Your task to perform on an android device: open device folders in google photos Image 0: 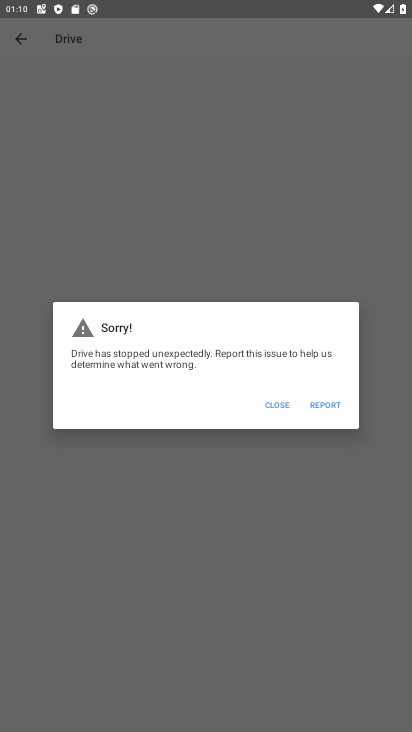
Step 0: press home button
Your task to perform on an android device: open device folders in google photos Image 1: 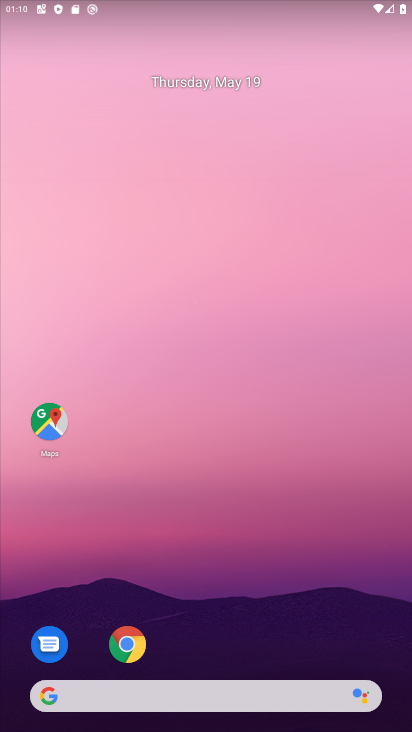
Step 1: drag from (366, 600) to (312, 166)
Your task to perform on an android device: open device folders in google photos Image 2: 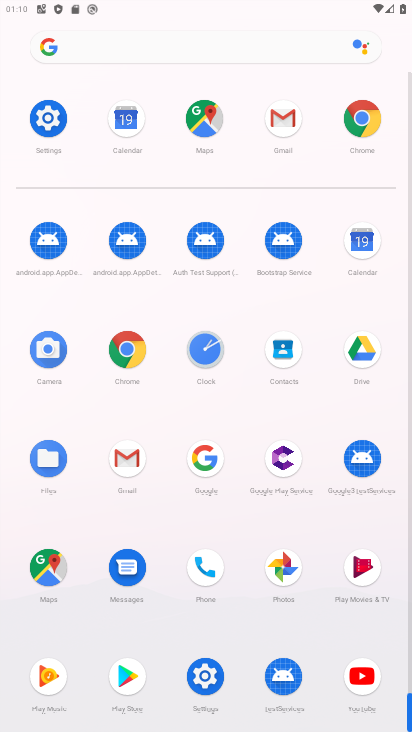
Step 2: click (282, 569)
Your task to perform on an android device: open device folders in google photos Image 3: 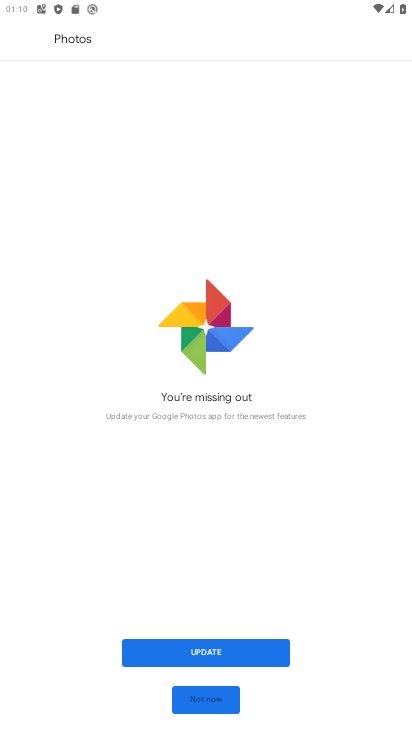
Step 3: click (259, 647)
Your task to perform on an android device: open device folders in google photos Image 4: 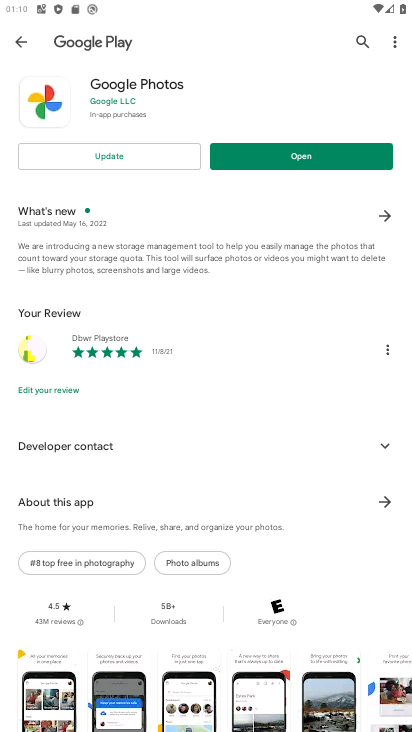
Step 4: click (140, 152)
Your task to perform on an android device: open device folders in google photos Image 5: 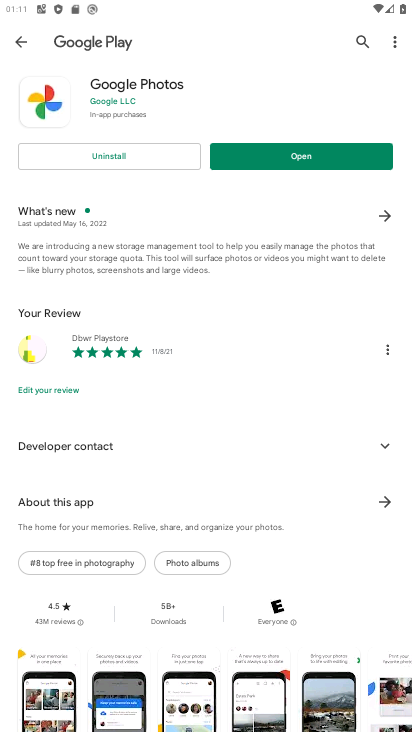
Step 5: click (323, 153)
Your task to perform on an android device: open device folders in google photos Image 6: 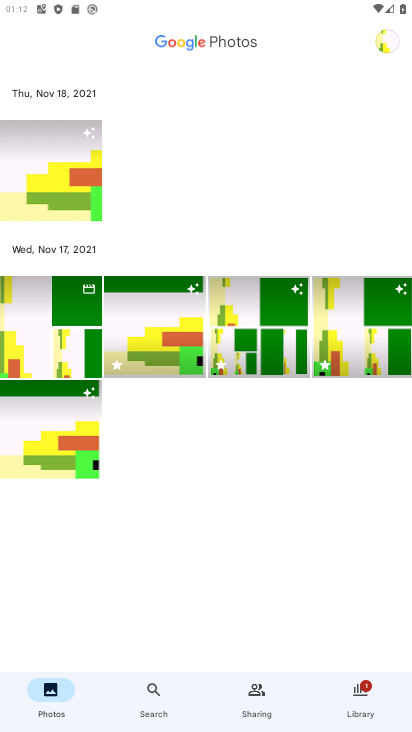
Step 6: click (356, 702)
Your task to perform on an android device: open device folders in google photos Image 7: 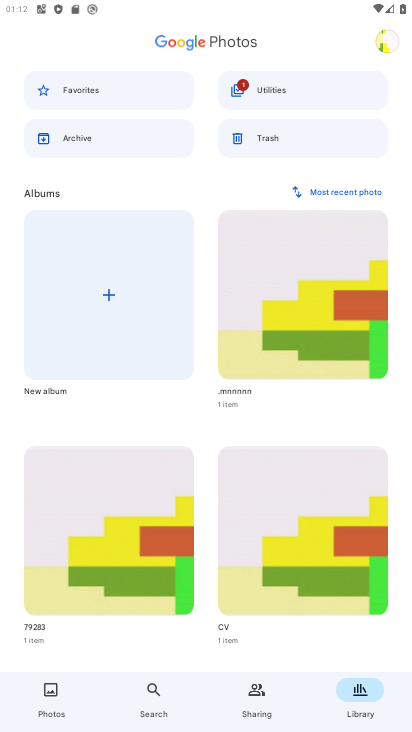
Step 7: click (113, 302)
Your task to perform on an android device: open device folders in google photos Image 8: 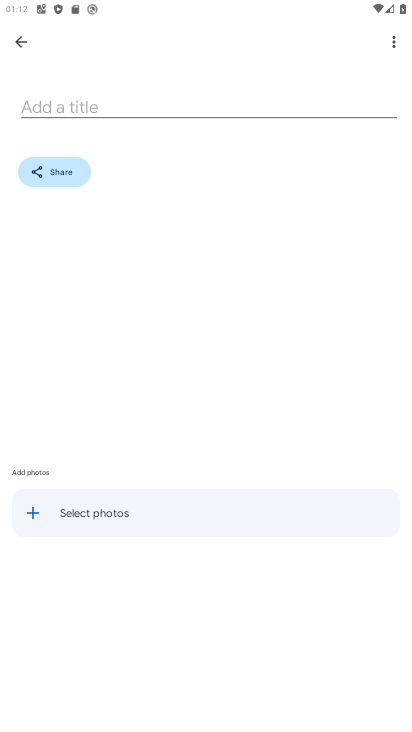
Step 8: click (108, 110)
Your task to perform on an android device: open device folders in google photos Image 9: 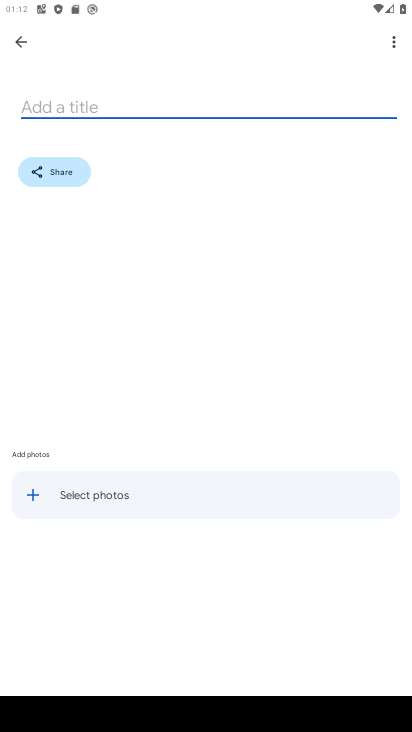
Step 9: type "dinsn"
Your task to perform on an android device: open device folders in google photos Image 10: 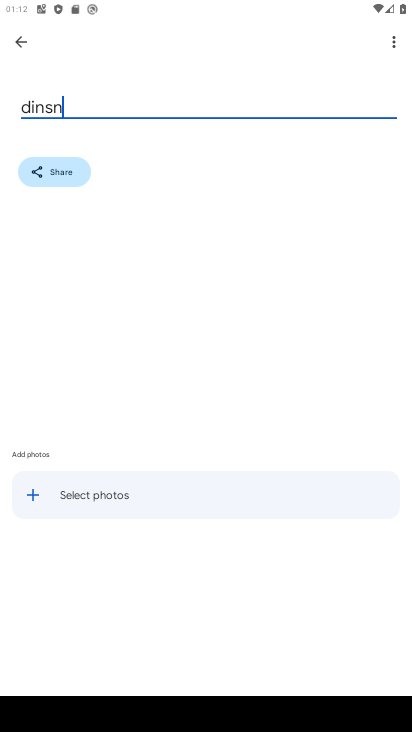
Step 10: click (25, 503)
Your task to perform on an android device: open device folders in google photos Image 11: 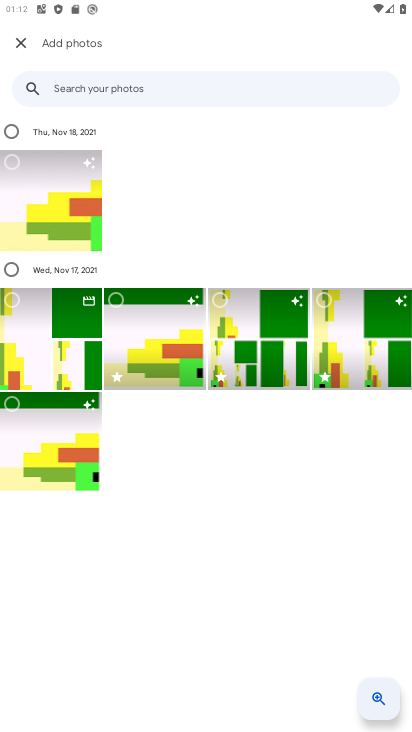
Step 11: click (13, 165)
Your task to perform on an android device: open device folders in google photos Image 12: 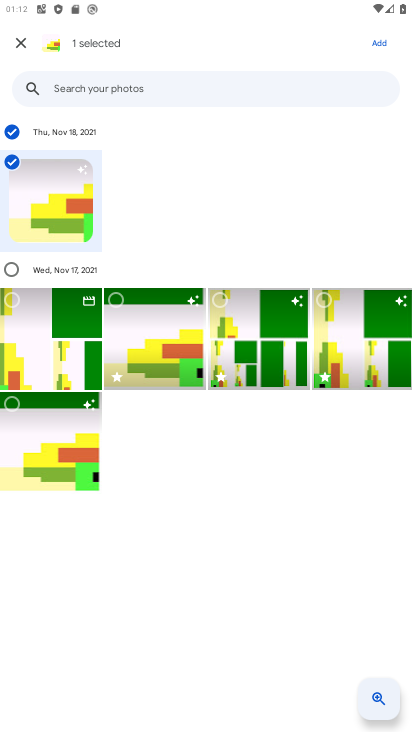
Step 12: click (380, 35)
Your task to perform on an android device: open device folders in google photos Image 13: 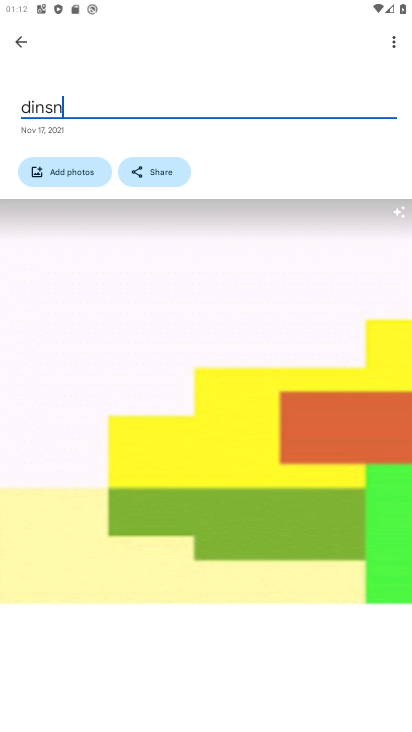
Step 13: task complete